Your task to perform on an android device: Show me recent news Image 0: 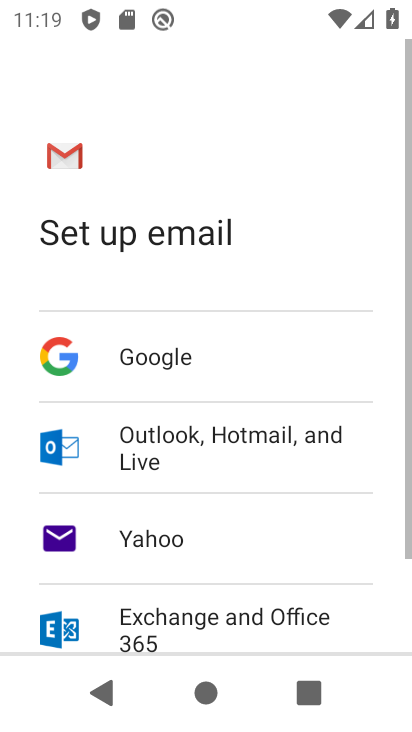
Step 0: press home button
Your task to perform on an android device: Show me recent news Image 1: 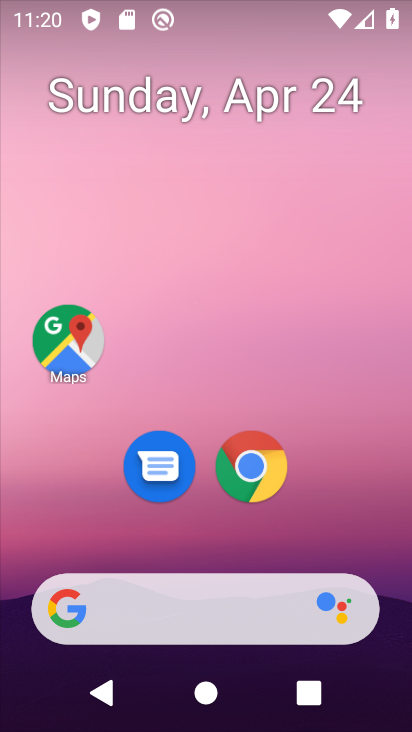
Step 1: drag from (223, 556) to (245, 114)
Your task to perform on an android device: Show me recent news Image 2: 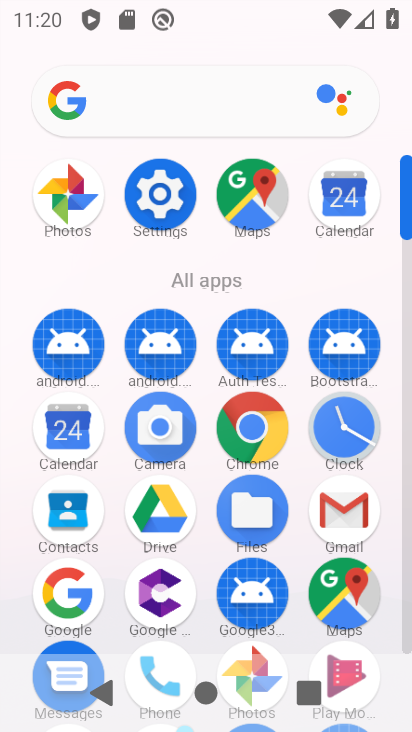
Step 2: drag from (266, 293) to (265, 185)
Your task to perform on an android device: Show me recent news Image 3: 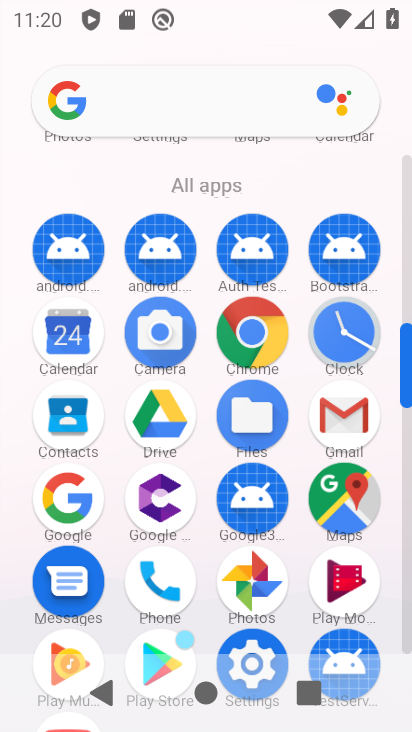
Step 3: drag from (283, 518) to (276, 227)
Your task to perform on an android device: Show me recent news Image 4: 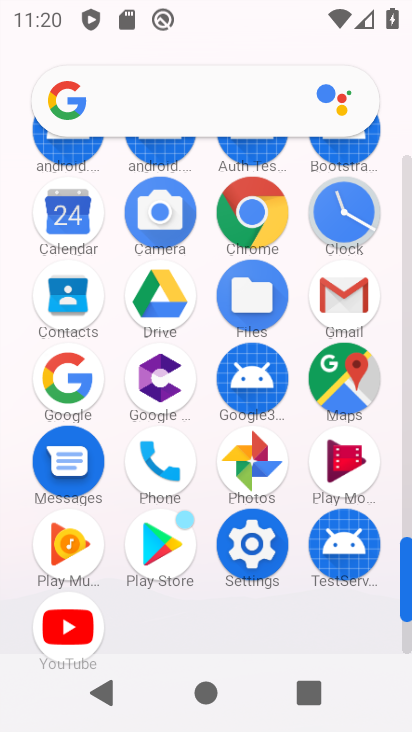
Step 4: click (54, 364)
Your task to perform on an android device: Show me recent news Image 5: 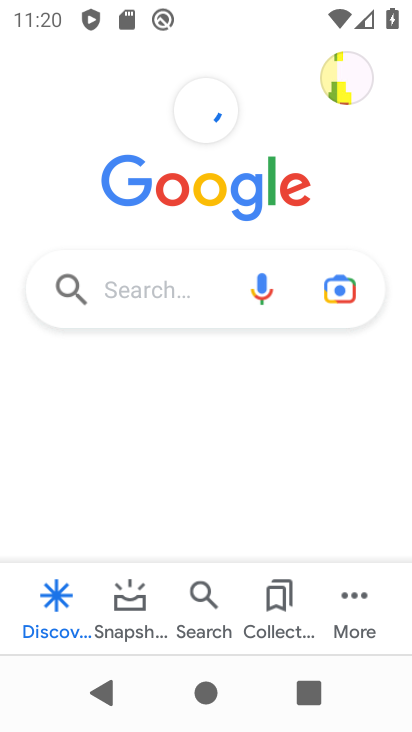
Step 5: click (165, 304)
Your task to perform on an android device: Show me recent news Image 6: 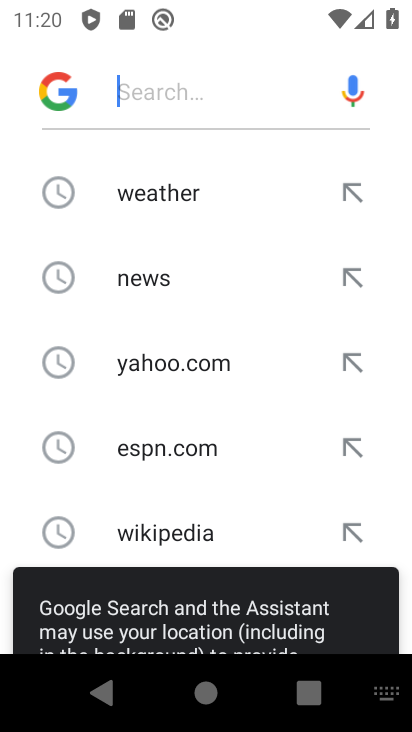
Step 6: click (165, 304)
Your task to perform on an android device: Show me recent news Image 7: 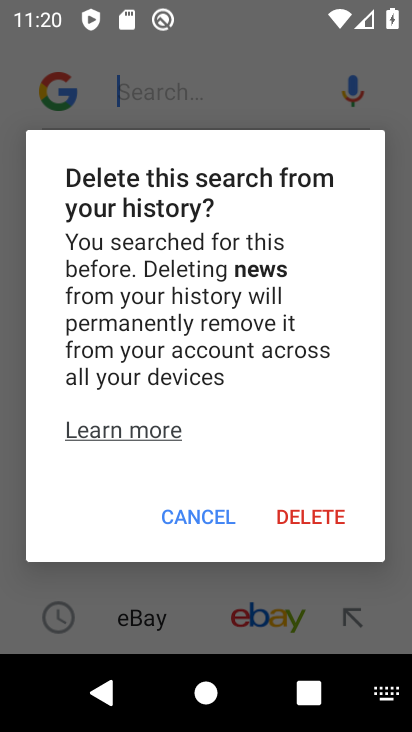
Step 7: click (174, 509)
Your task to perform on an android device: Show me recent news Image 8: 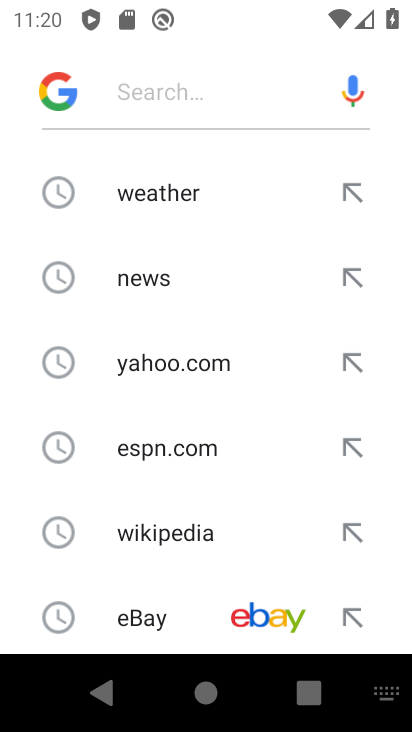
Step 8: click (180, 286)
Your task to perform on an android device: Show me recent news Image 9: 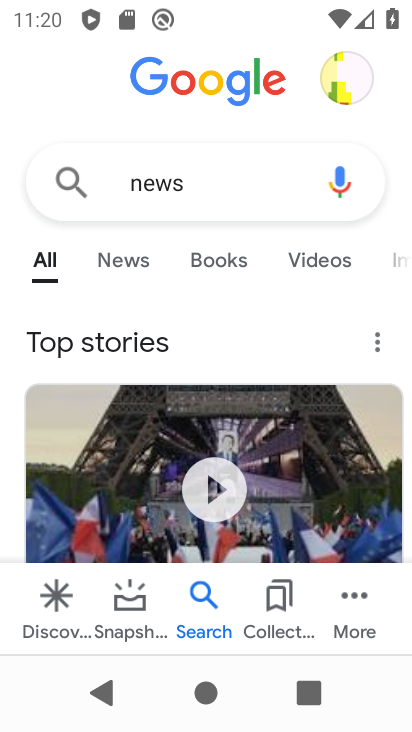
Step 9: task complete